Your task to perform on an android device: snooze an email in the gmail app Image 0: 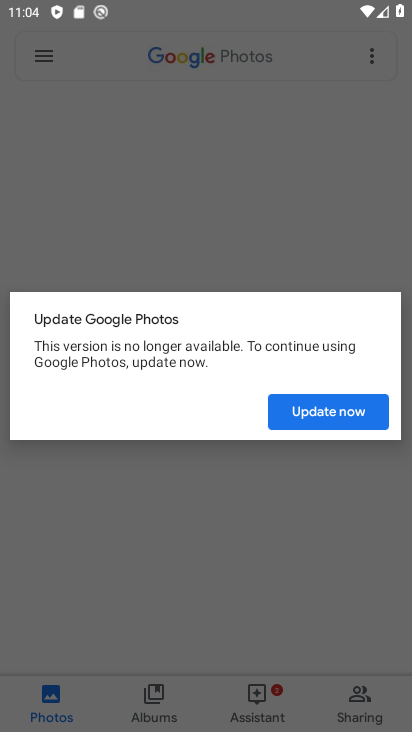
Step 0: press home button
Your task to perform on an android device: snooze an email in the gmail app Image 1: 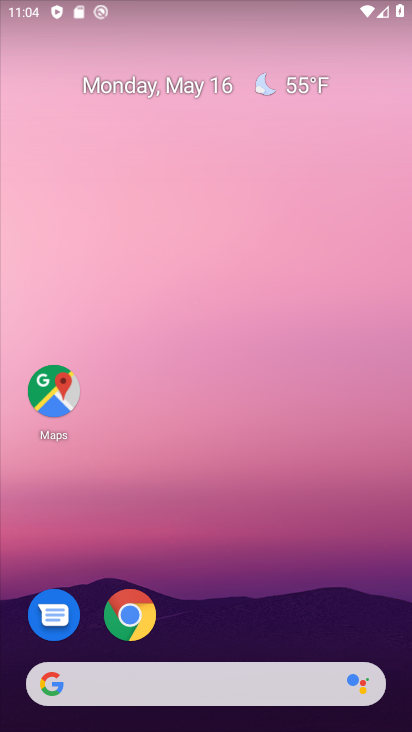
Step 1: drag from (260, 576) to (305, 87)
Your task to perform on an android device: snooze an email in the gmail app Image 2: 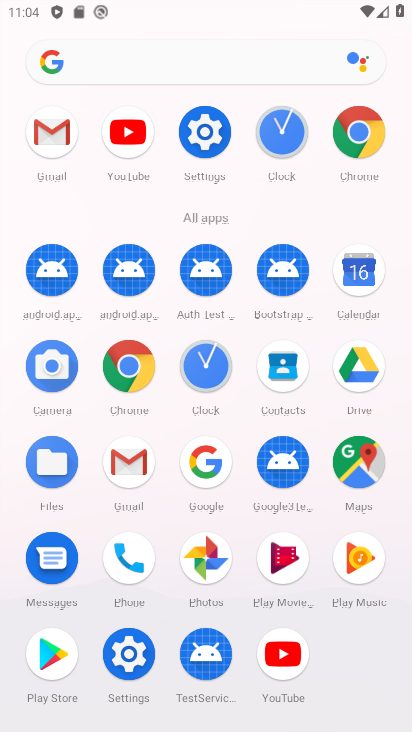
Step 2: click (49, 137)
Your task to perform on an android device: snooze an email in the gmail app Image 3: 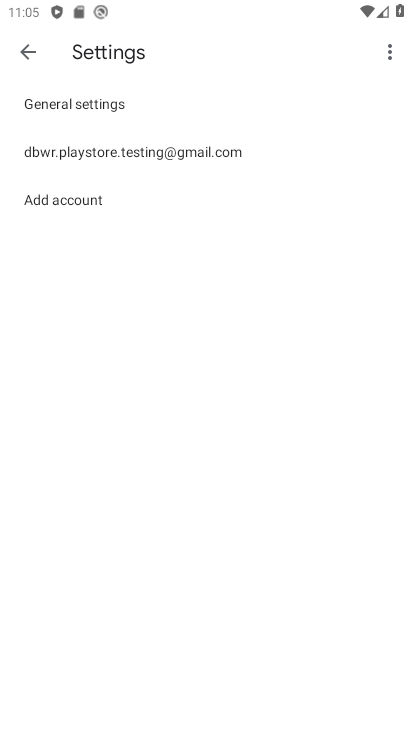
Step 3: click (20, 49)
Your task to perform on an android device: snooze an email in the gmail app Image 4: 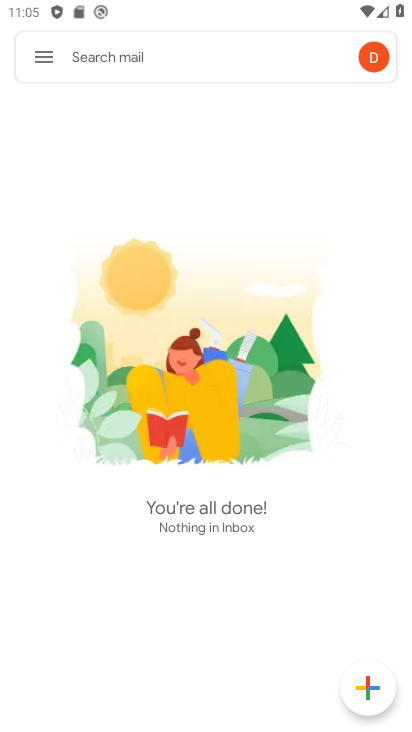
Step 4: click (49, 57)
Your task to perform on an android device: snooze an email in the gmail app Image 5: 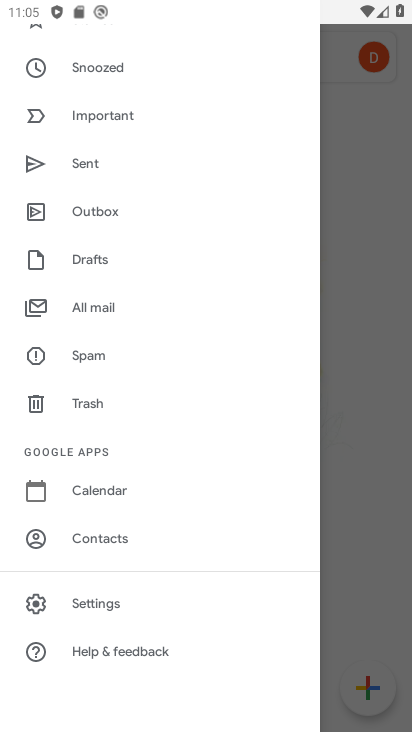
Step 5: drag from (196, 179) to (194, 618)
Your task to perform on an android device: snooze an email in the gmail app Image 6: 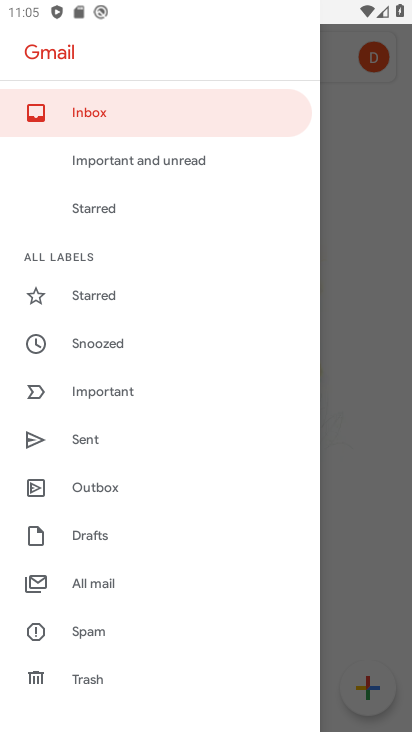
Step 6: click (89, 341)
Your task to perform on an android device: snooze an email in the gmail app Image 7: 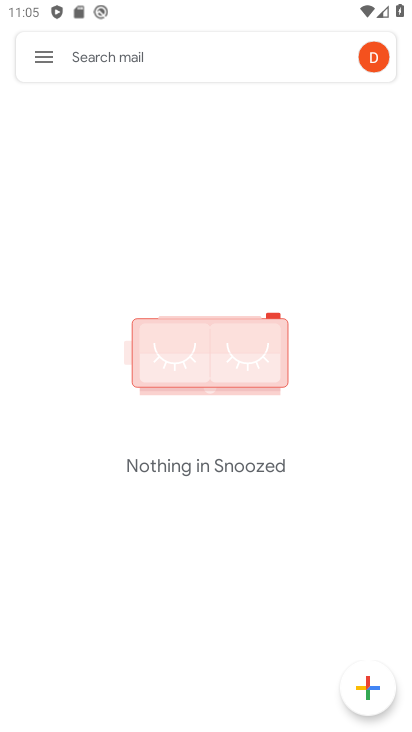
Step 7: task complete